Your task to perform on an android device: check android version Image 0: 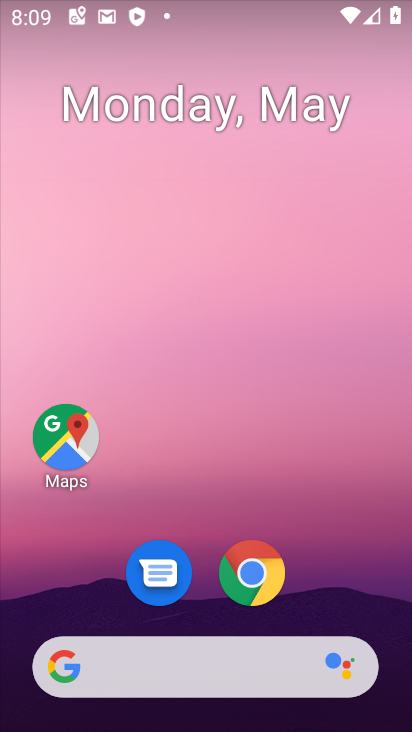
Step 0: drag from (230, 697) to (217, 163)
Your task to perform on an android device: check android version Image 1: 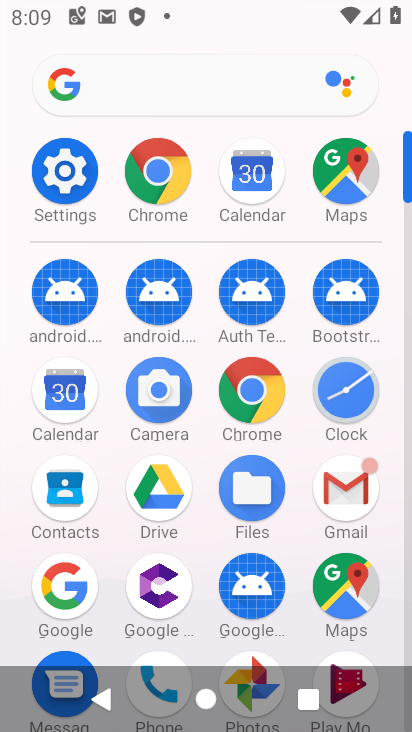
Step 1: click (84, 150)
Your task to perform on an android device: check android version Image 2: 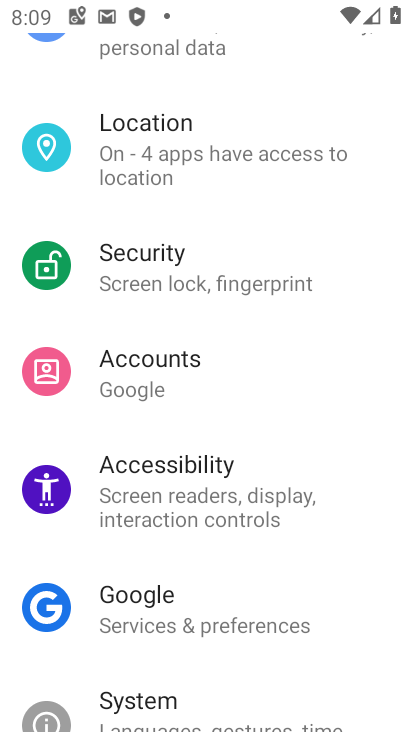
Step 2: drag from (200, 553) to (325, 8)
Your task to perform on an android device: check android version Image 3: 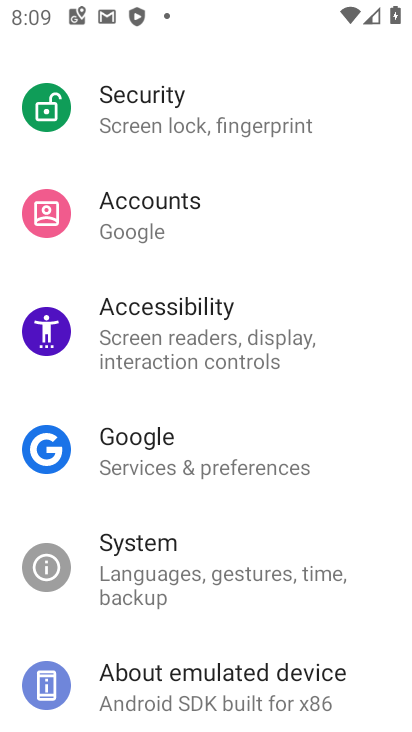
Step 3: drag from (227, 545) to (292, 45)
Your task to perform on an android device: check android version Image 4: 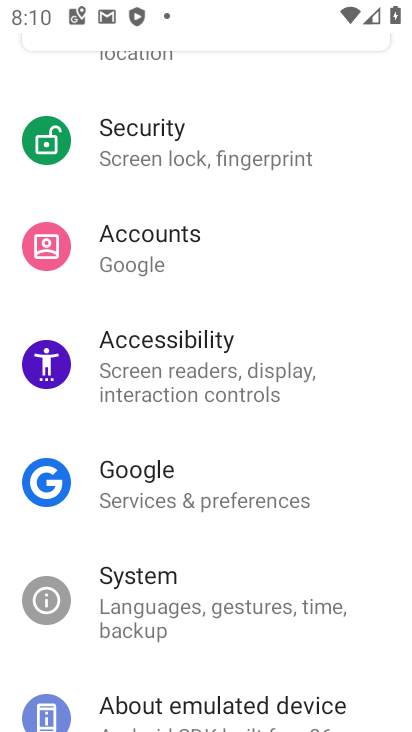
Step 4: click (190, 692)
Your task to perform on an android device: check android version Image 5: 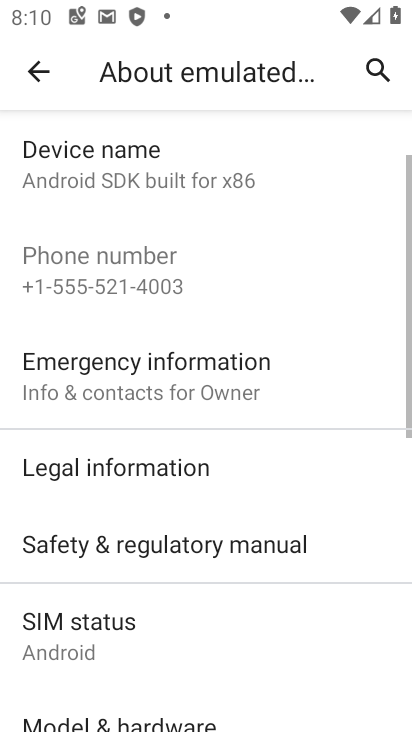
Step 5: click (123, 255)
Your task to perform on an android device: check android version Image 6: 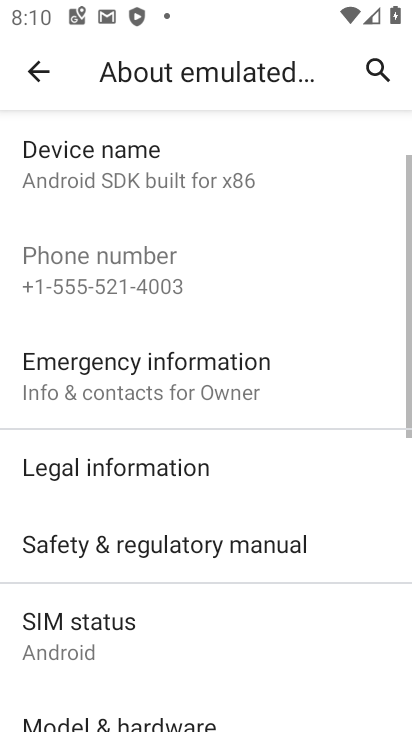
Step 6: drag from (116, 592) to (81, 256)
Your task to perform on an android device: check android version Image 7: 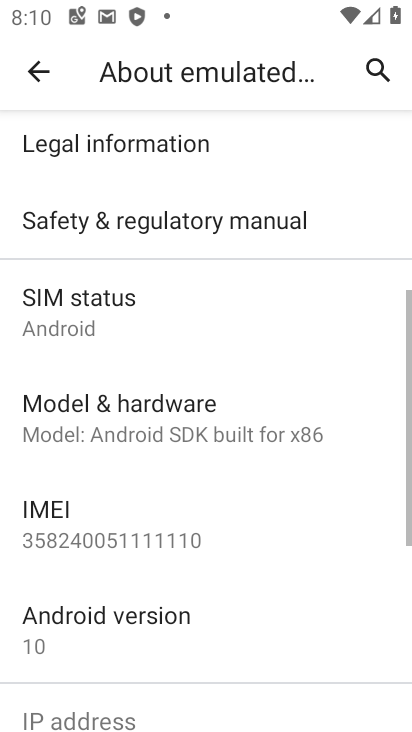
Step 7: click (143, 621)
Your task to perform on an android device: check android version Image 8: 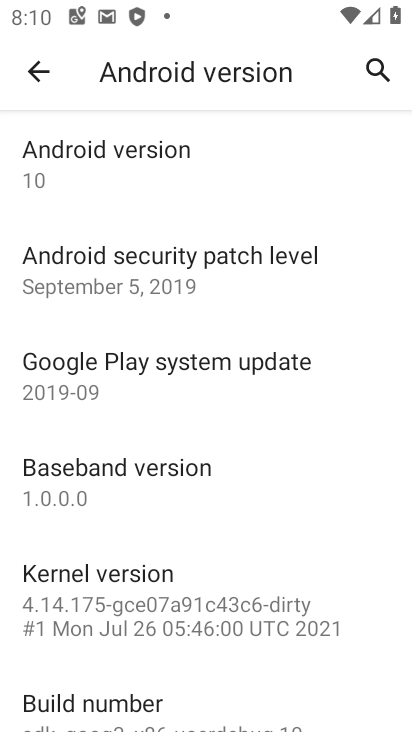
Step 8: click (168, 156)
Your task to perform on an android device: check android version Image 9: 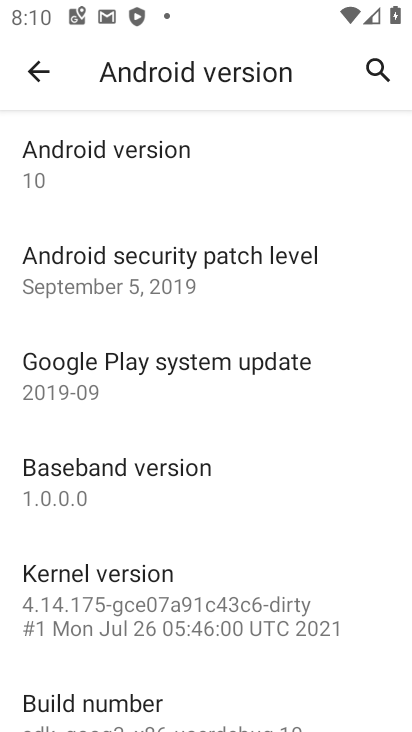
Step 9: task complete